Your task to perform on an android device: Open calendar and show me the third week of next month Image 0: 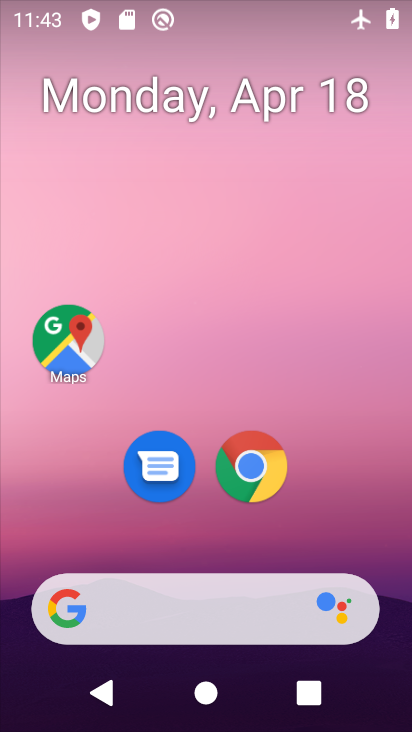
Step 0: drag from (278, 564) to (236, 258)
Your task to perform on an android device: Open calendar and show me the third week of next month Image 1: 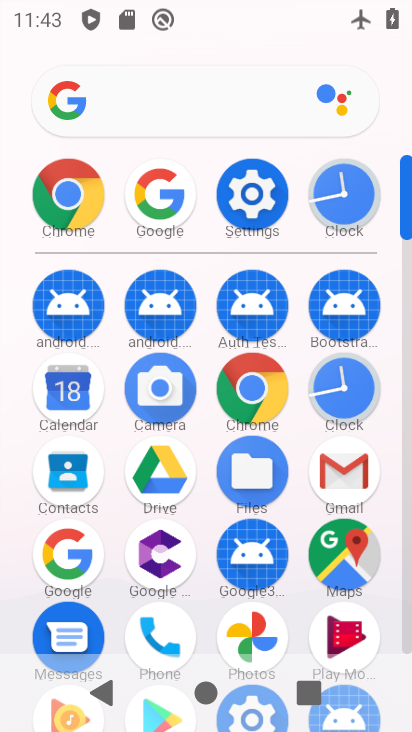
Step 1: click (87, 390)
Your task to perform on an android device: Open calendar and show me the third week of next month Image 2: 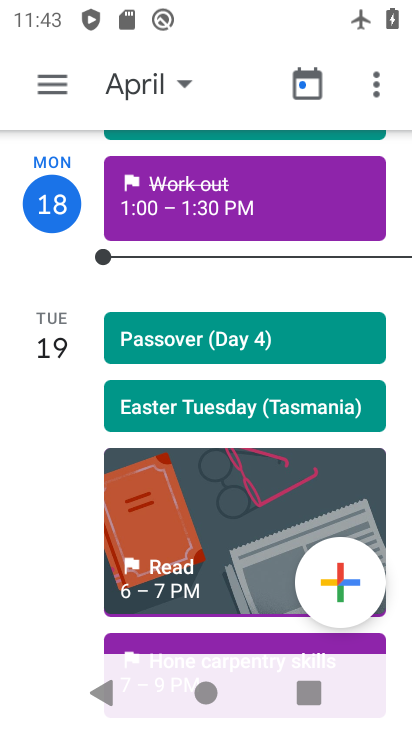
Step 2: click (170, 88)
Your task to perform on an android device: Open calendar and show me the third week of next month Image 3: 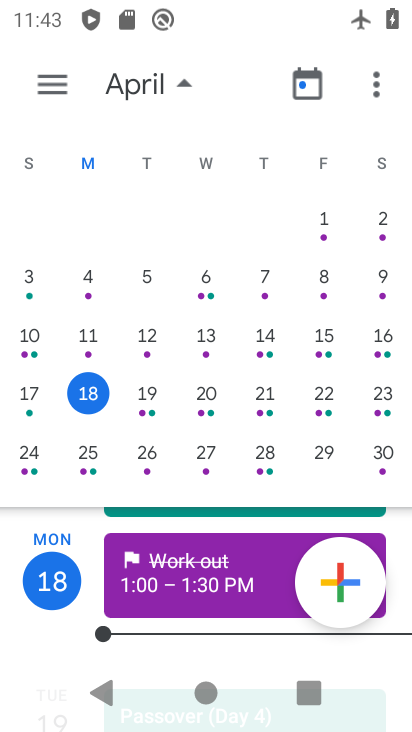
Step 3: drag from (366, 303) to (32, 310)
Your task to perform on an android device: Open calendar and show me the third week of next month Image 4: 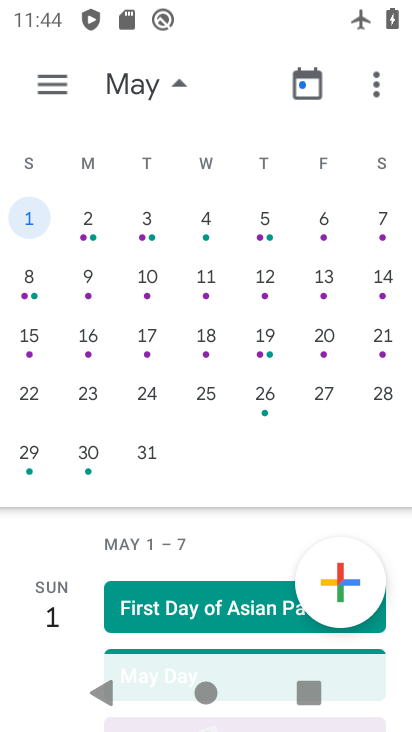
Step 4: click (31, 353)
Your task to perform on an android device: Open calendar and show me the third week of next month Image 5: 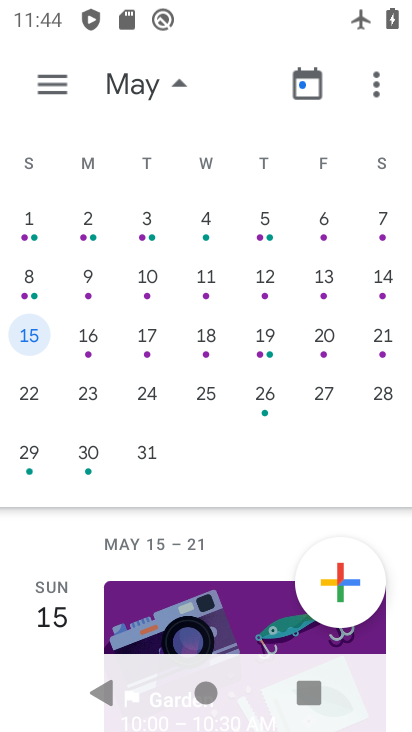
Step 5: task complete